Your task to perform on an android device: Open calendar and show me the third week of next month Image 0: 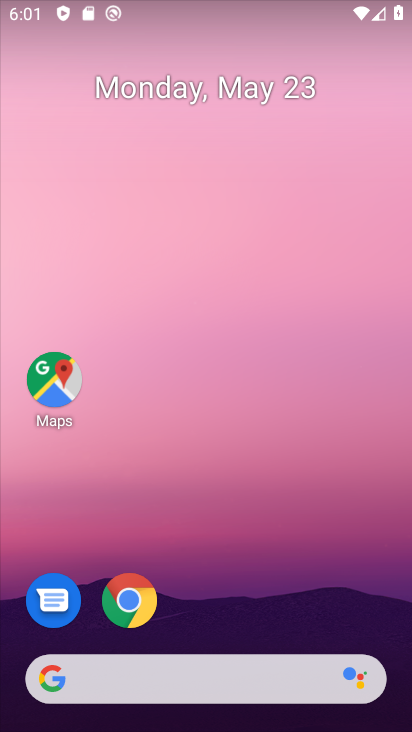
Step 0: drag from (274, 604) to (275, 335)
Your task to perform on an android device: Open calendar and show me the third week of next month Image 1: 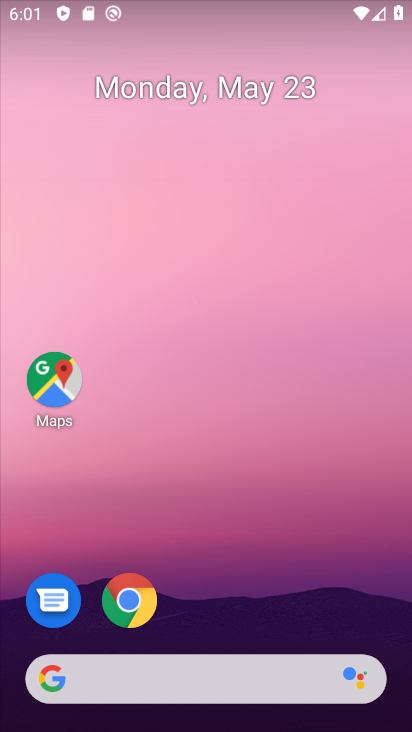
Step 1: drag from (241, 571) to (233, 142)
Your task to perform on an android device: Open calendar and show me the third week of next month Image 2: 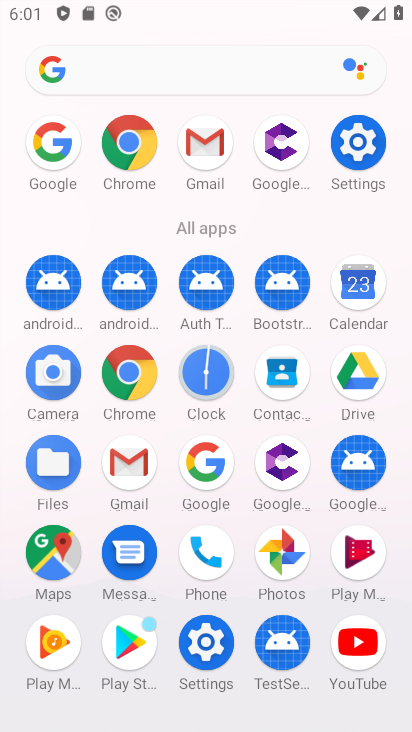
Step 2: click (361, 296)
Your task to perform on an android device: Open calendar and show me the third week of next month Image 3: 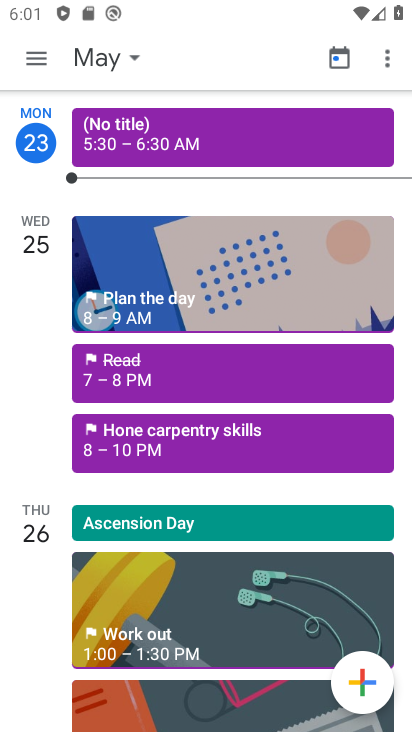
Step 3: click (118, 63)
Your task to perform on an android device: Open calendar and show me the third week of next month Image 4: 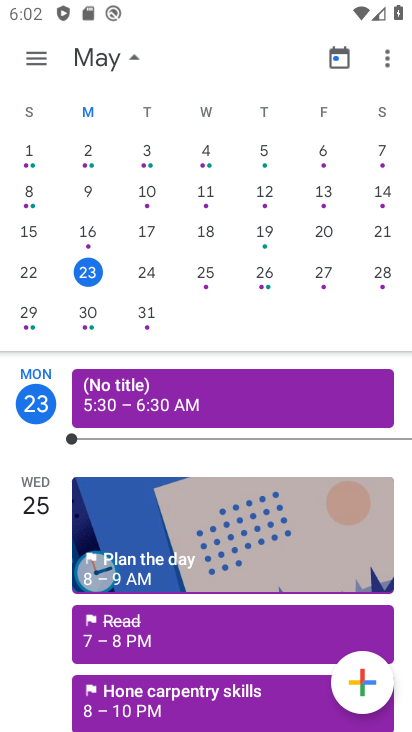
Step 4: drag from (288, 237) to (2, 269)
Your task to perform on an android device: Open calendar and show me the third week of next month Image 5: 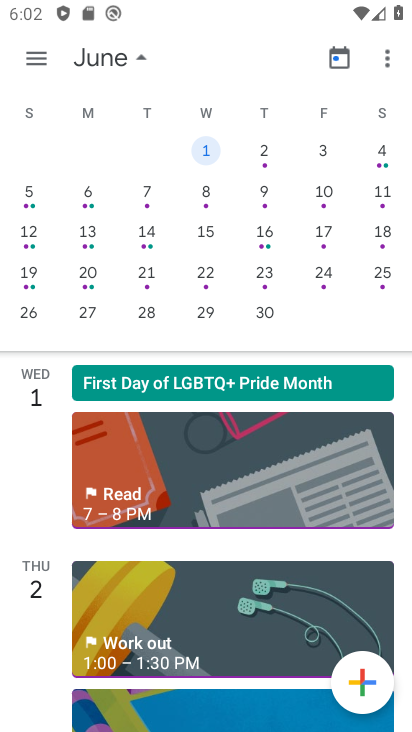
Step 5: click (34, 236)
Your task to perform on an android device: Open calendar and show me the third week of next month Image 6: 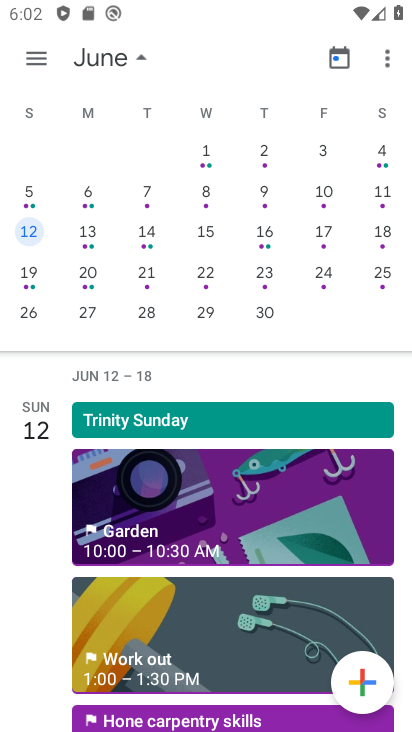
Step 6: click (134, 48)
Your task to perform on an android device: Open calendar and show me the third week of next month Image 7: 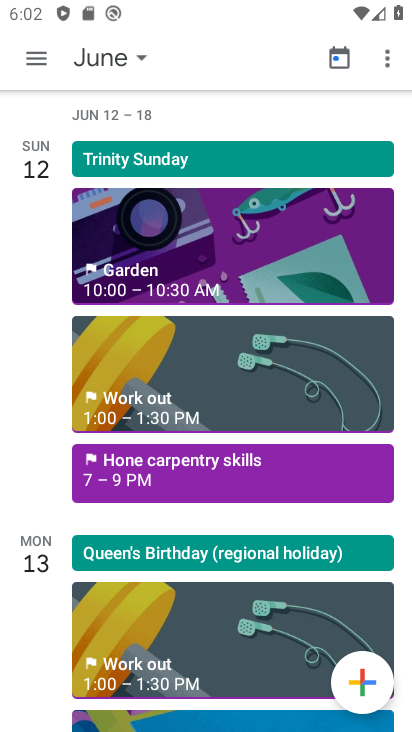
Step 7: click (24, 60)
Your task to perform on an android device: Open calendar and show me the third week of next month Image 8: 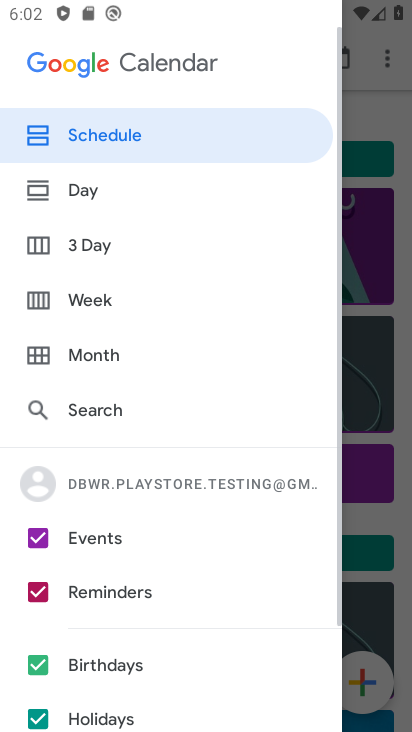
Step 8: click (73, 311)
Your task to perform on an android device: Open calendar and show me the third week of next month Image 9: 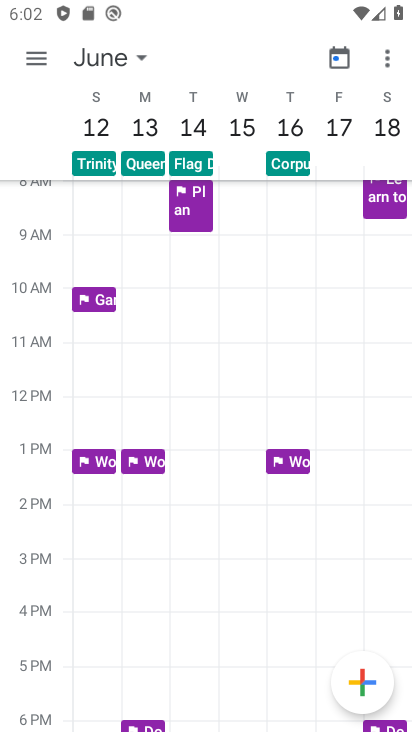
Step 9: task complete